Your task to perform on an android device: Go to network settings Image 0: 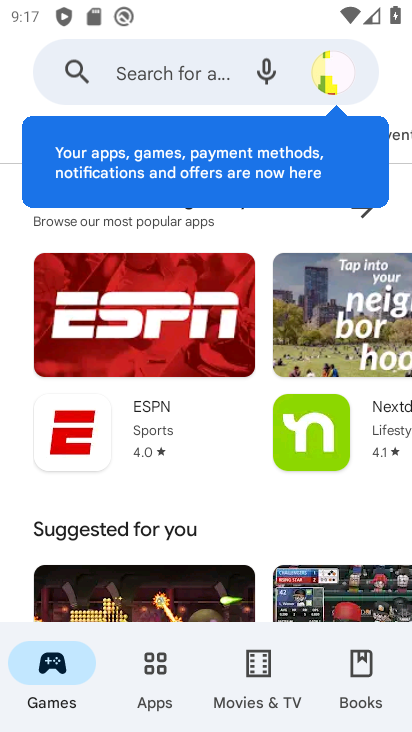
Step 0: press home button
Your task to perform on an android device: Go to network settings Image 1: 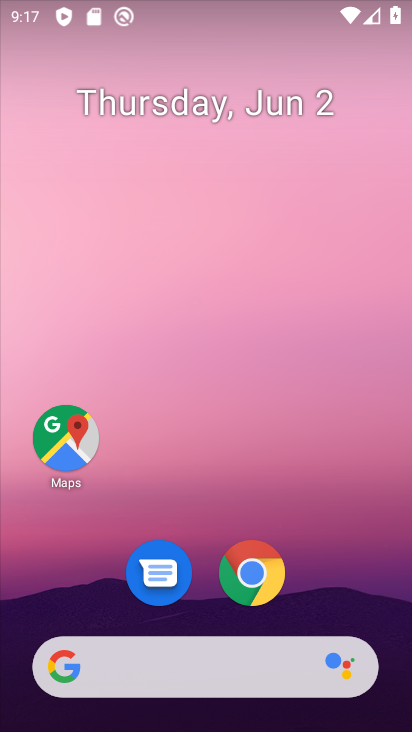
Step 1: drag from (338, 571) to (154, 156)
Your task to perform on an android device: Go to network settings Image 2: 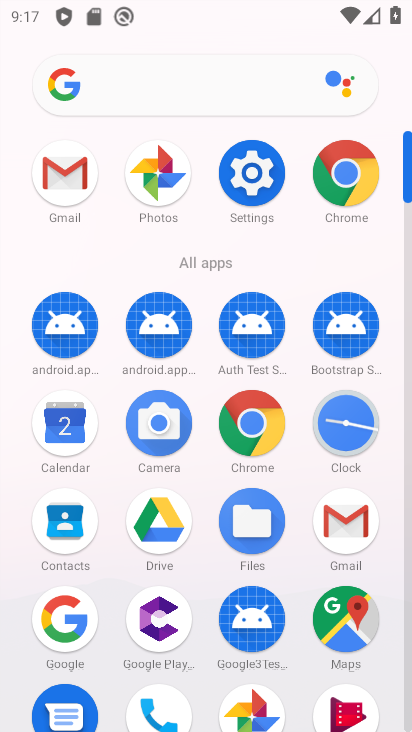
Step 2: click (247, 171)
Your task to perform on an android device: Go to network settings Image 3: 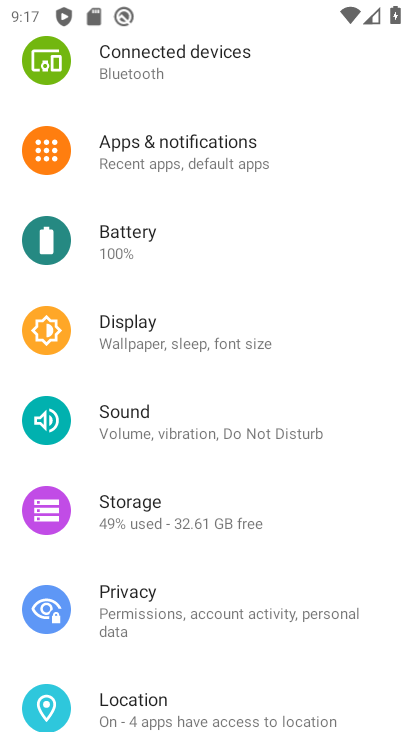
Step 3: drag from (209, 248) to (286, 561)
Your task to perform on an android device: Go to network settings Image 4: 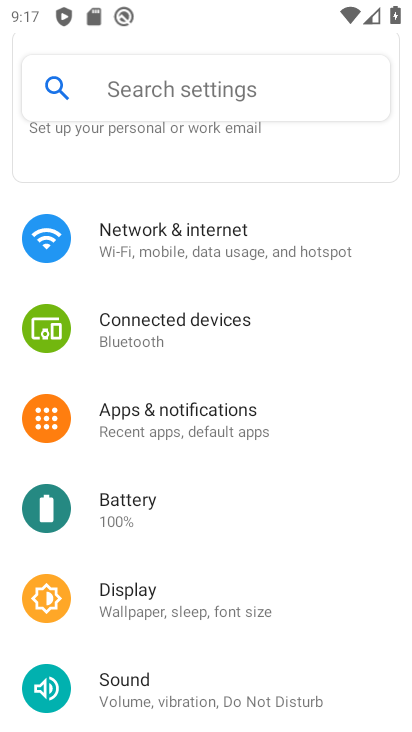
Step 4: click (137, 235)
Your task to perform on an android device: Go to network settings Image 5: 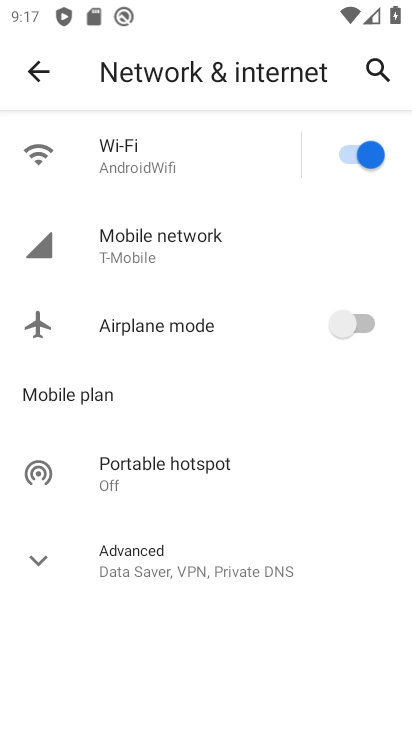
Step 5: click (172, 560)
Your task to perform on an android device: Go to network settings Image 6: 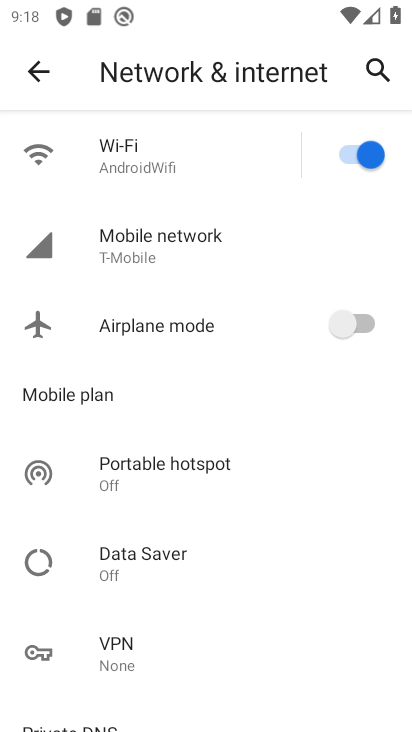
Step 6: task complete